Your task to perform on an android device: install app "Google Play services" Image 0: 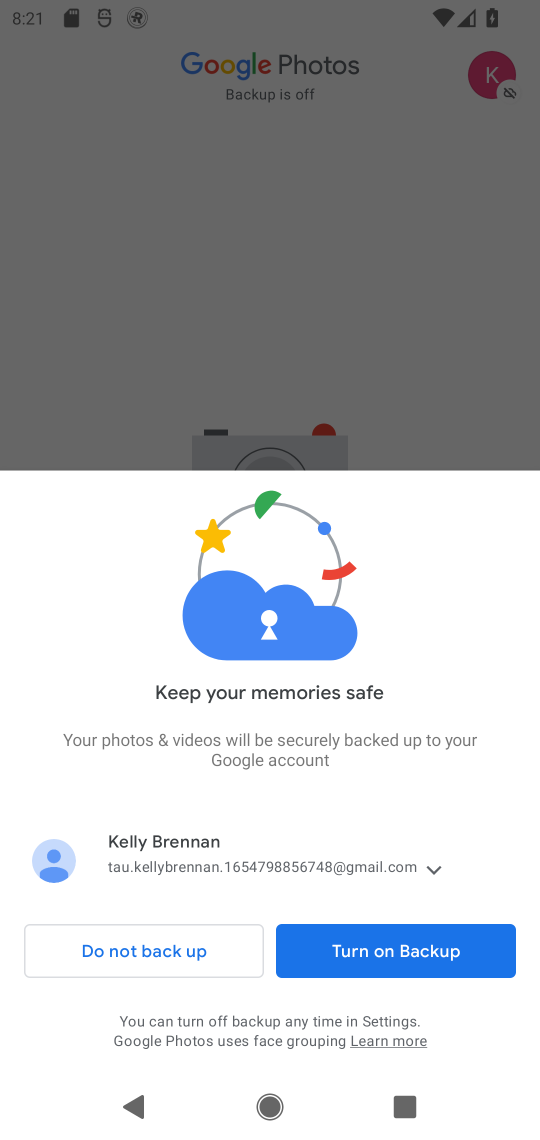
Step 0: press home button
Your task to perform on an android device: install app "Google Play services" Image 1: 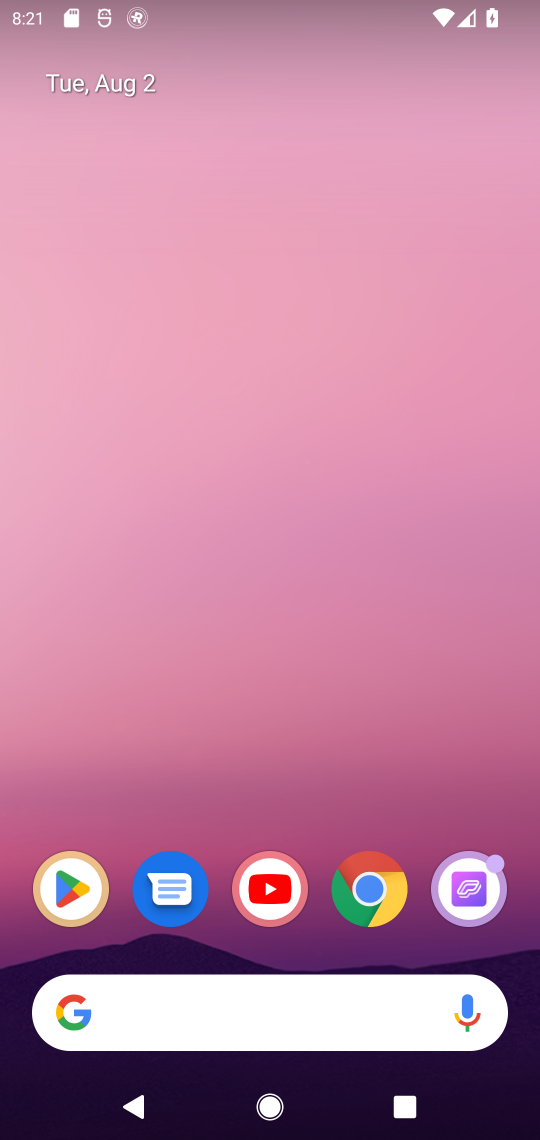
Step 1: click (73, 885)
Your task to perform on an android device: install app "Google Play services" Image 2: 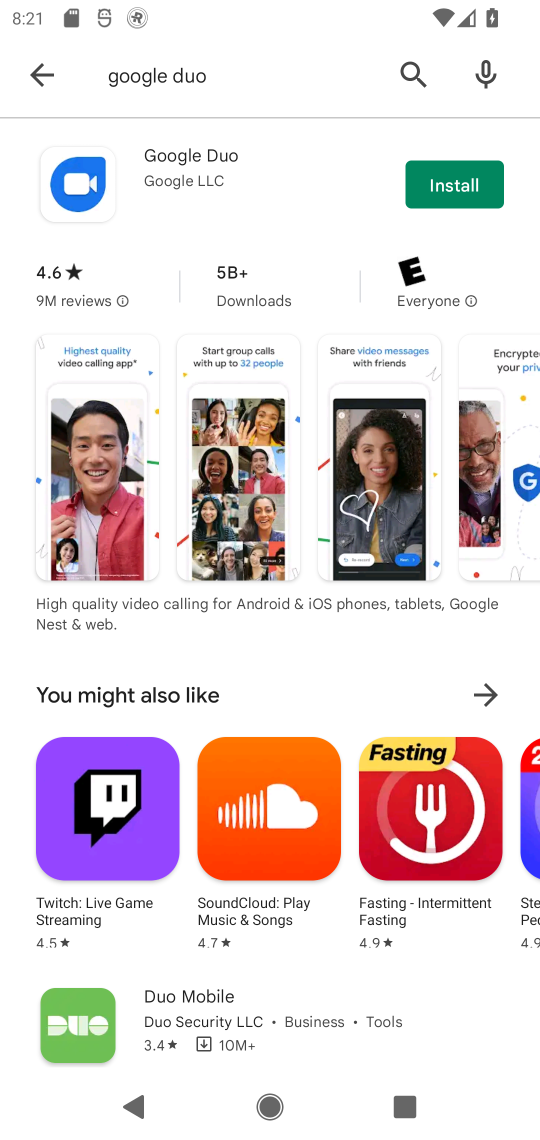
Step 2: click (405, 54)
Your task to perform on an android device: install app "Google Play services" Image 3: 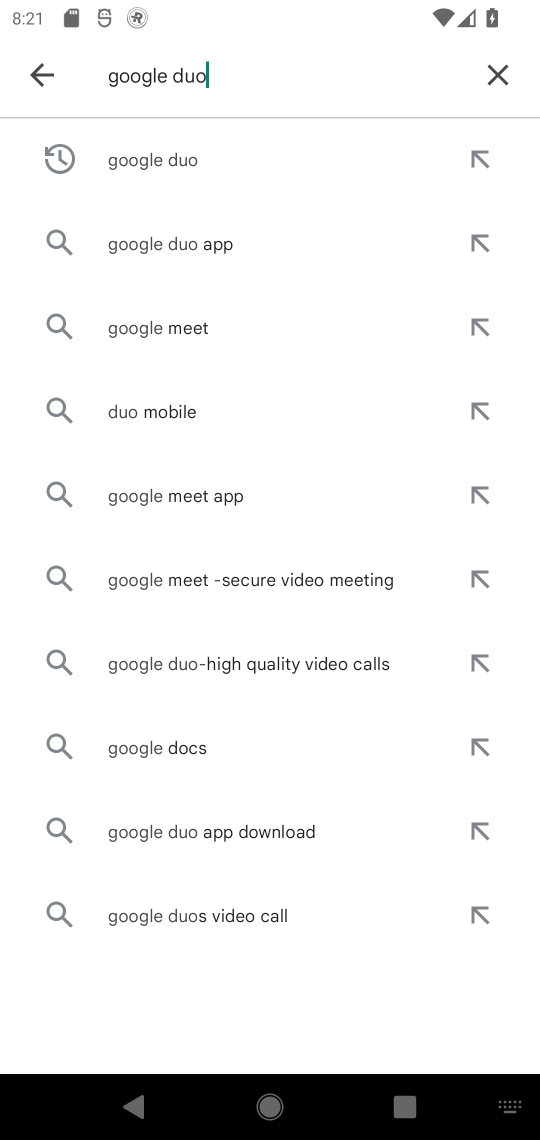
Step 3: click (501, 72)
Your task to perform on an android device: install app "Google Play services" Image 4: 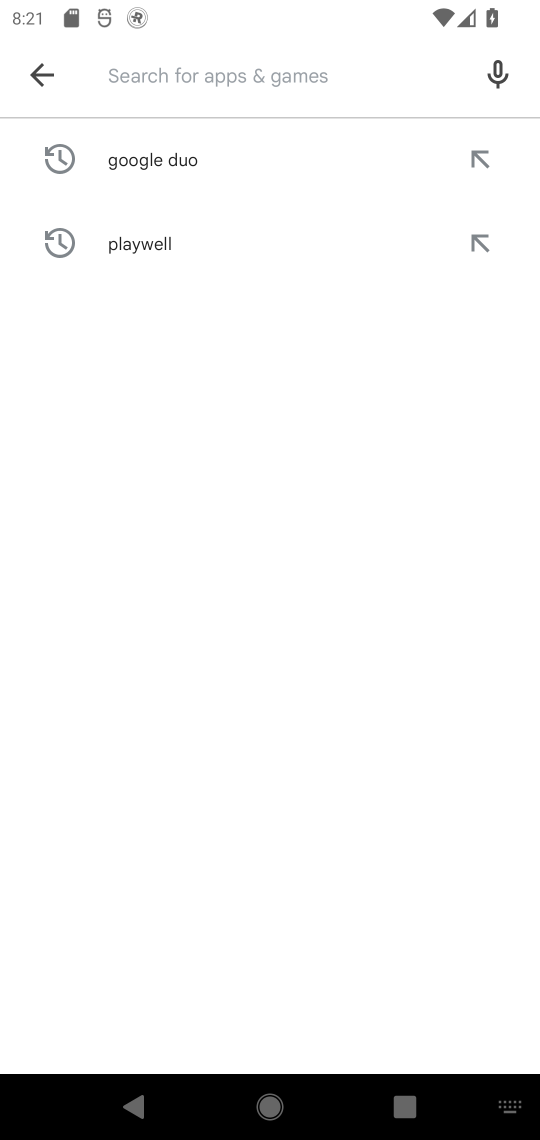
Step 4: type "Google Play services"
Your task to perform on an android device: install app "Google Play services" Image 5: 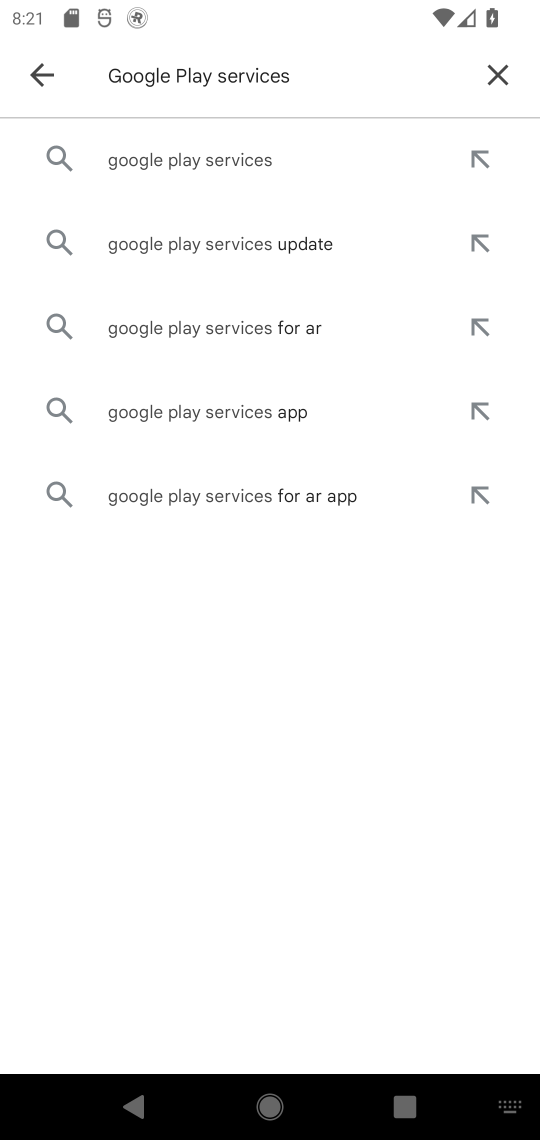
Step 5: click (213, 153)
Your task to perform on an android device: install app "Google Play services" Image 6: 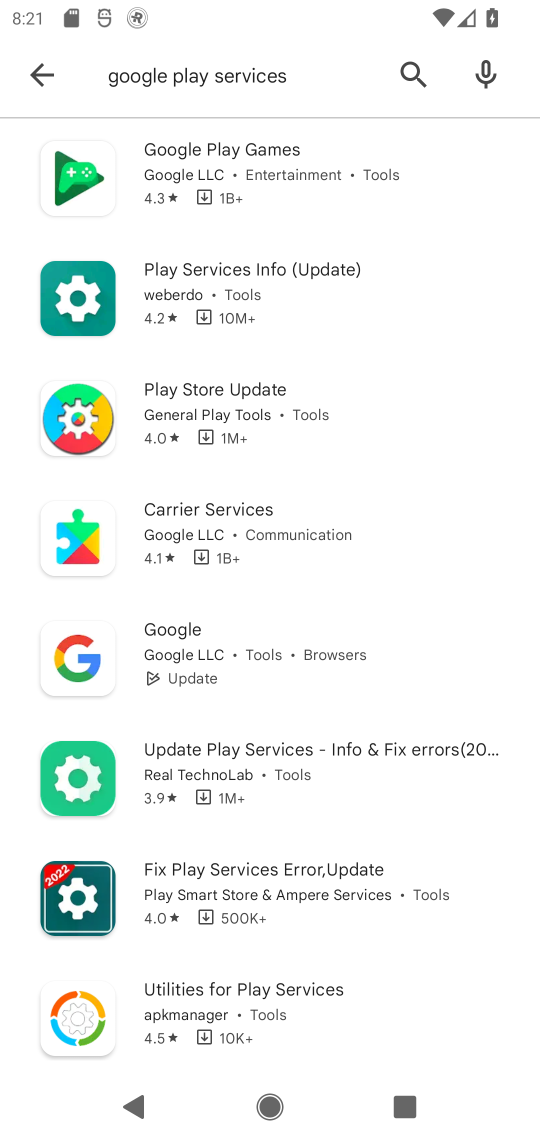
Step 6: task complete